Your task to perform on an android device: Go to CNN.com Image 0: 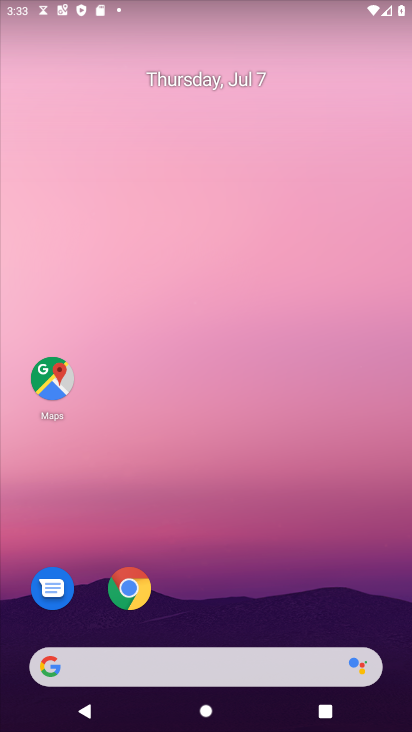
Step 0: click (129, 588)
Your task to perform on an android device: Go to CNN.com Image 1: 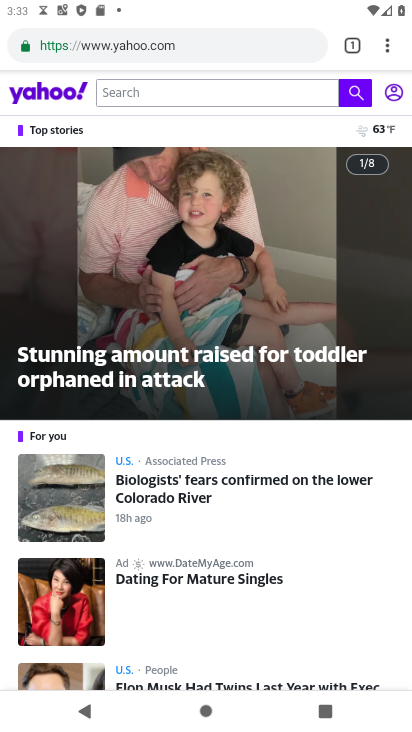
Step 1: click (265, 45)
Your task to perform on an android device: Go to CNN.com Image 2: 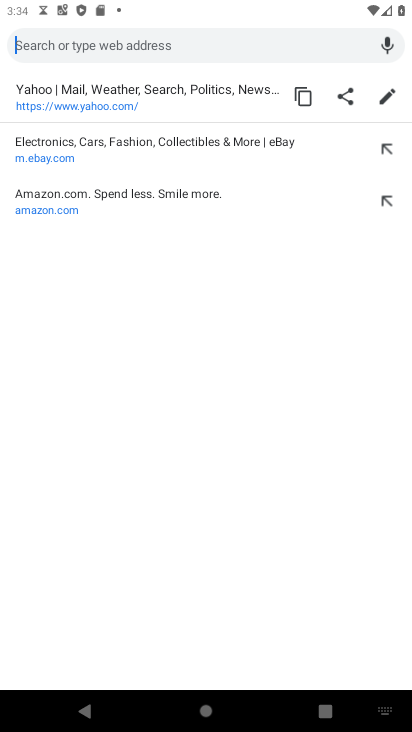
Step 2: type "CNN.com"
Your task to perform on an android device: Go to CNN.com Image 3: 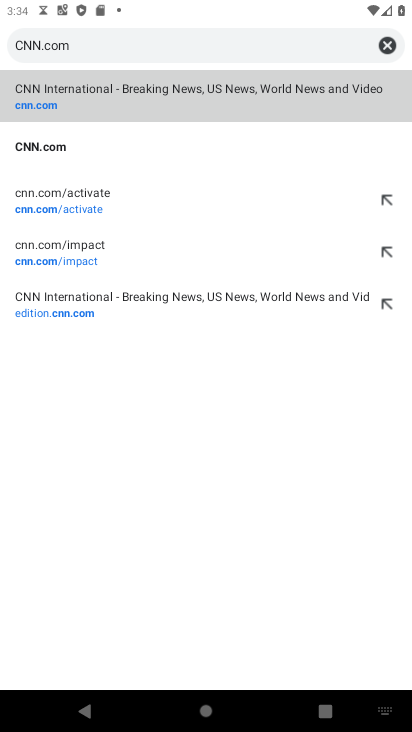
Step 3: click (55, 141)
Your task to perform on an android device: Go to CNN.com Image 4: 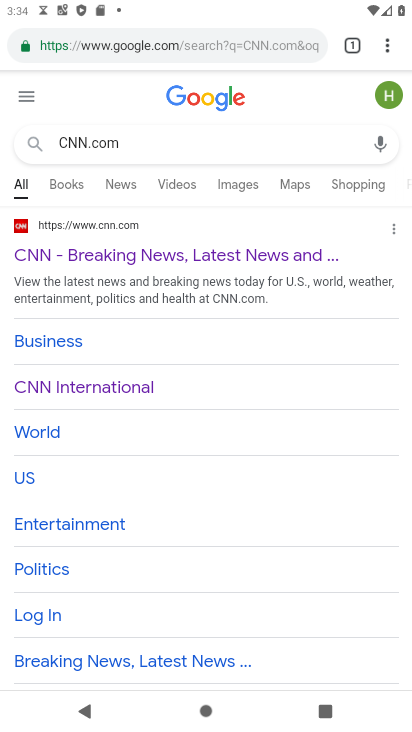
Step 4: click (103, 258)
Your task to perform on an android device: Go to CNN.com Image 5: 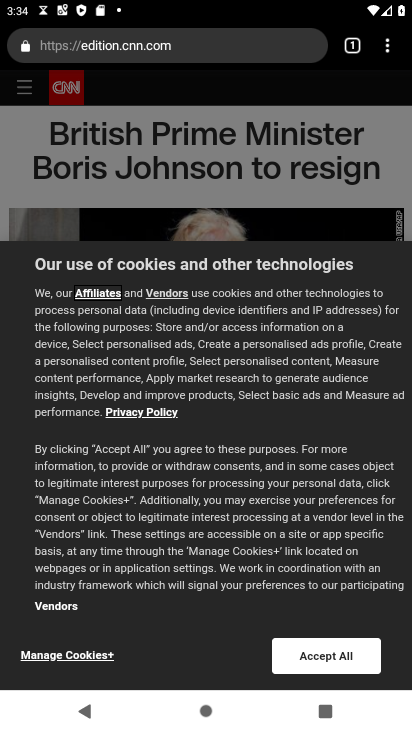
Step 5: click (318, 646)
Your task to perform on an android device: Go to CNN.com Image 6: 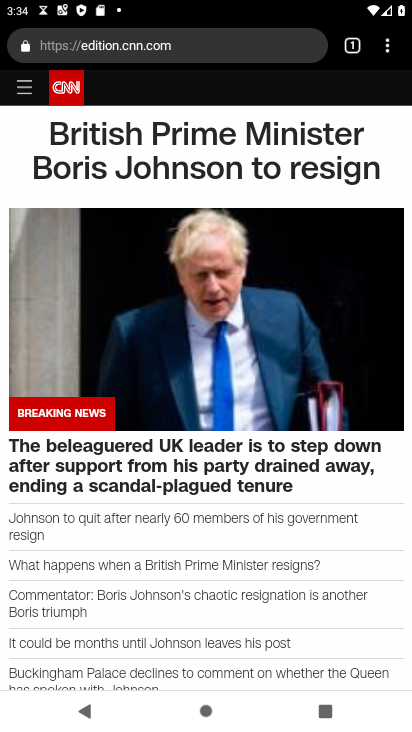
Step 6: task complete